Your task to perform on an android device: toggle notifications settings in the gmail app Image 0: 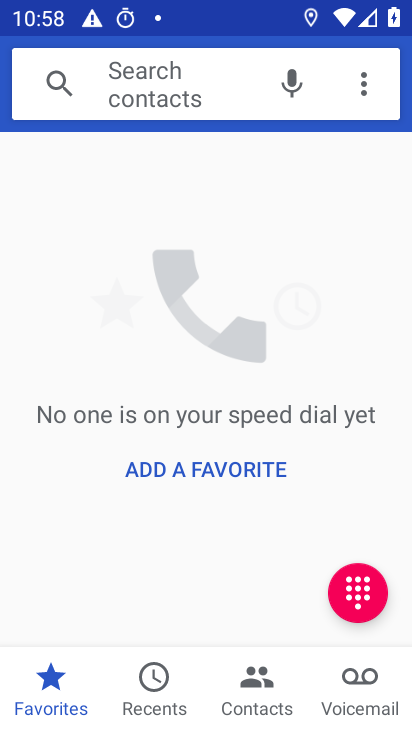
Step 0: press home button
Your task to perform on an android device: toggle notifications settings in the gmail app Image 1: 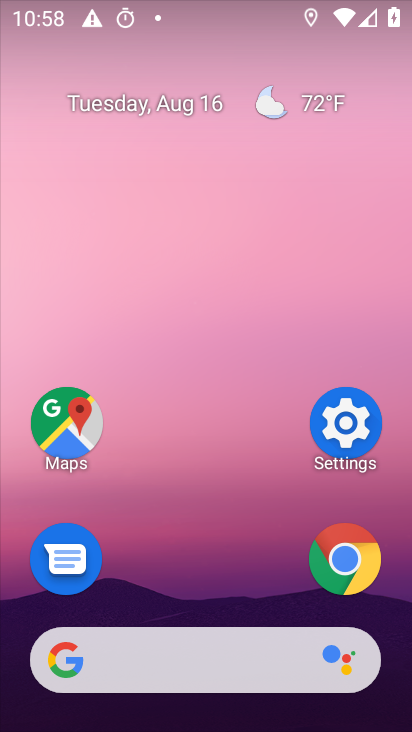
Step 1: drag from (162, 621) to (273, 193)
Your task to perform on an android device: toggle notifications settings in the gmail app Image 2: 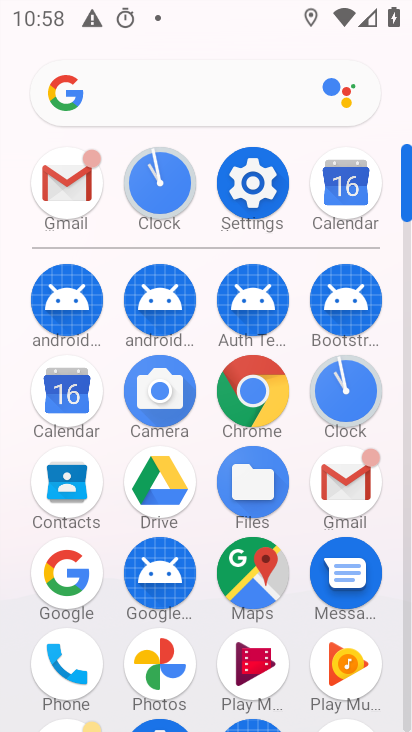
Step 2: click (344, 488)
Your task to perform on an android device: toggle notifications settings in the gmail app Image 3: 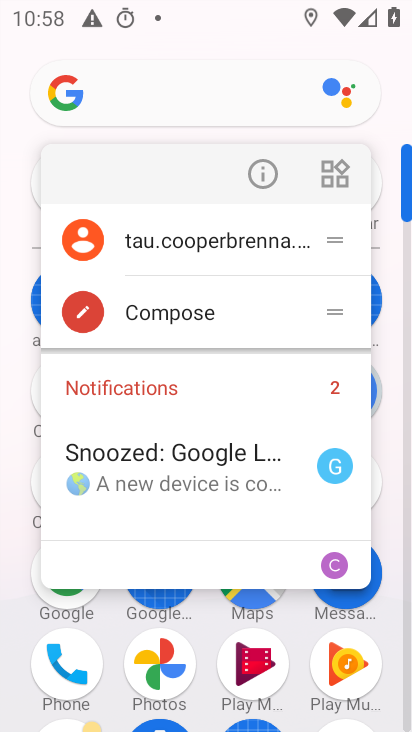
Step 3: click (376, 486)
Your task to perform on an android device: toggle notifications settings in the gmail app Image 4: 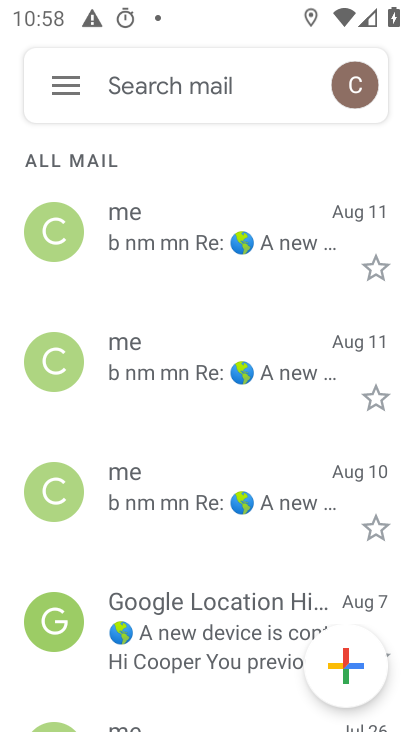
Step 4: click (64, 85)
Your task to perform on an android device: toggle notifications settings in the gmail app Image 5: 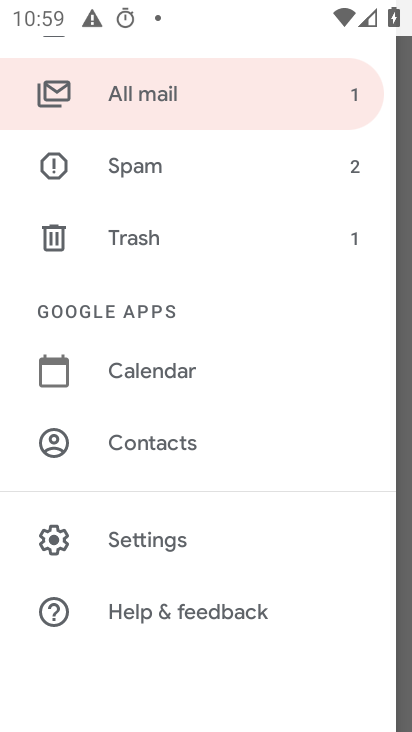
Step 5: click (158, 537)
Your task to perform on an android device: toggle notifications settings in the gmail app Image 6: 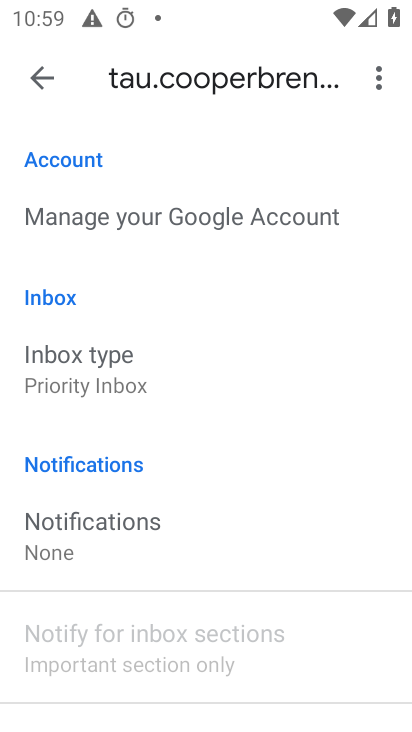
Step 6: click (93, 531)
Your task to perform on an android device: toggle notifications settings in the gmail app Image 7: 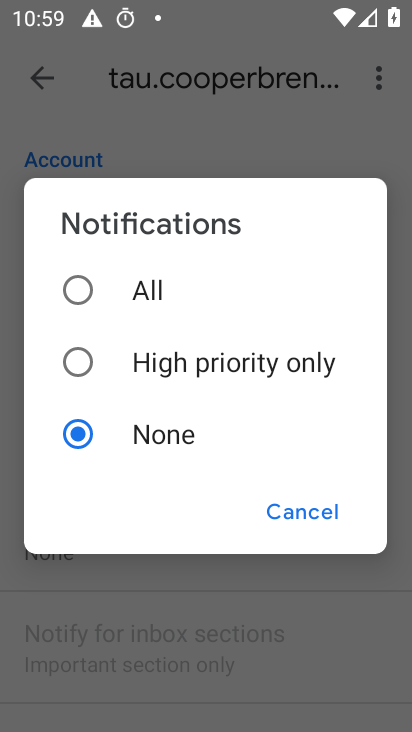
Step 7: click (84, 289)
Your task to perform on an android device: toggle notifications settings in the gmail app Image 8: 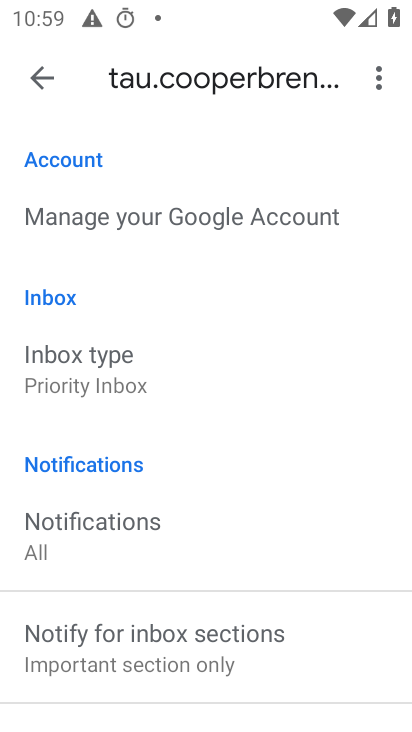
Step 8: task complete